Your task to perform on an android device: Search for "usb-a" on ebay.com, select the first entry, add it to the cart, then select checkout. Image 0: 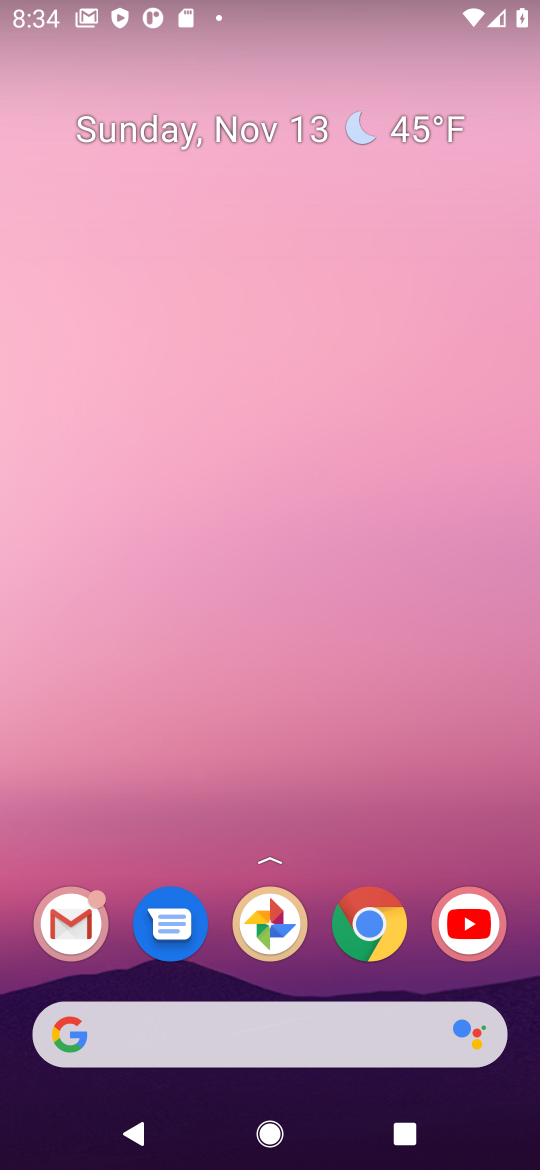
Step 0: click (362, 918)
Your task to perform on an android device: Search for "usb-a" on ebay.com, select the first entry, add it to the cart, then select checkout. Image 1: 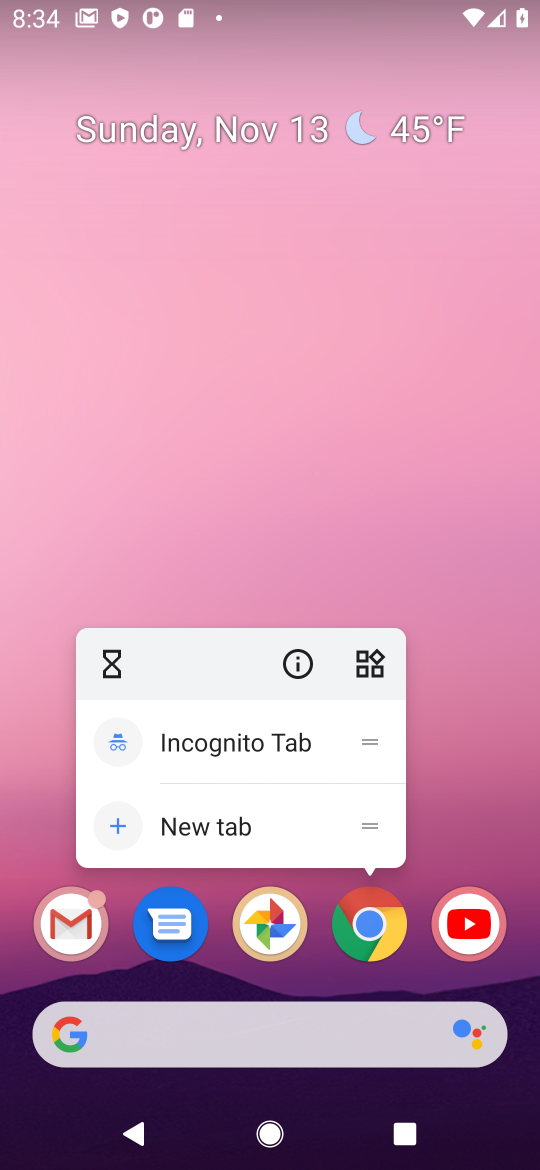
Step 1: click (362, 922)
Your task to perform on an android device: Search for "usb-a" on ebay.com, select the first entry, add it to the cart, then select checkout. Image 2: 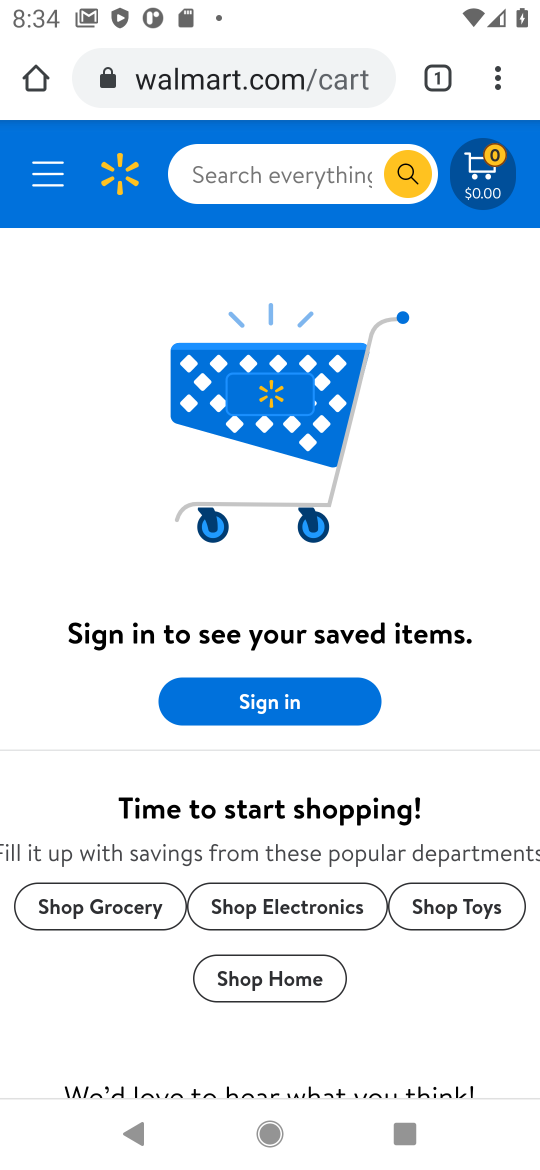
Step 2: click (313, 76)
Your task to perform on an android device: Search for "usb-a" on ebay.com, select the first entry, add it to the cart, then select checkout. Image 3: 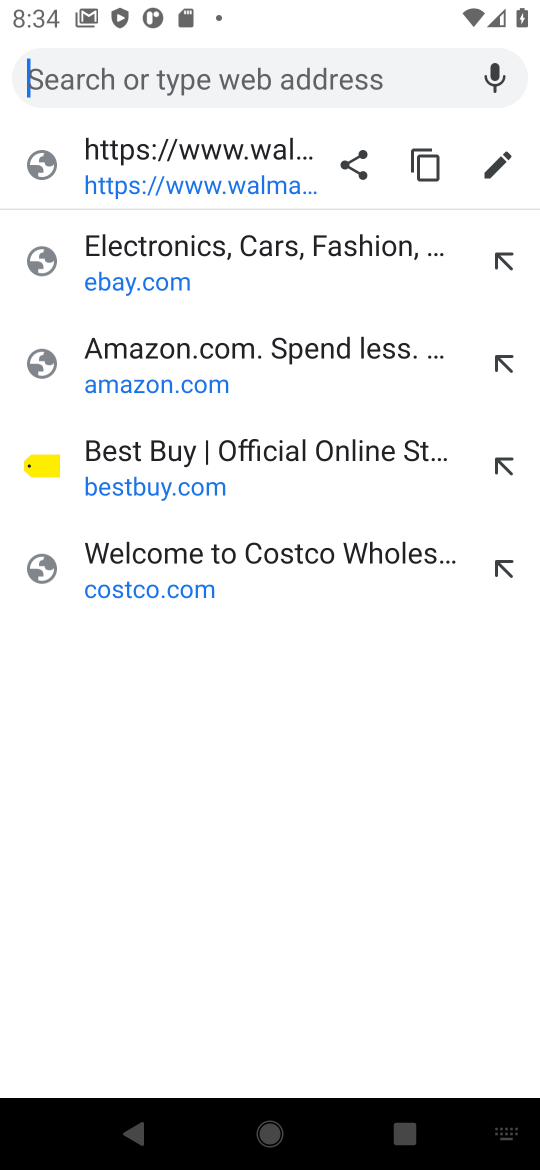
Step 3: click (139, 273)
Your task to perform on an android device: Search for "usb-a" on ebay.com, select the first entry, add it to the cart, then select checkout. Image 4: 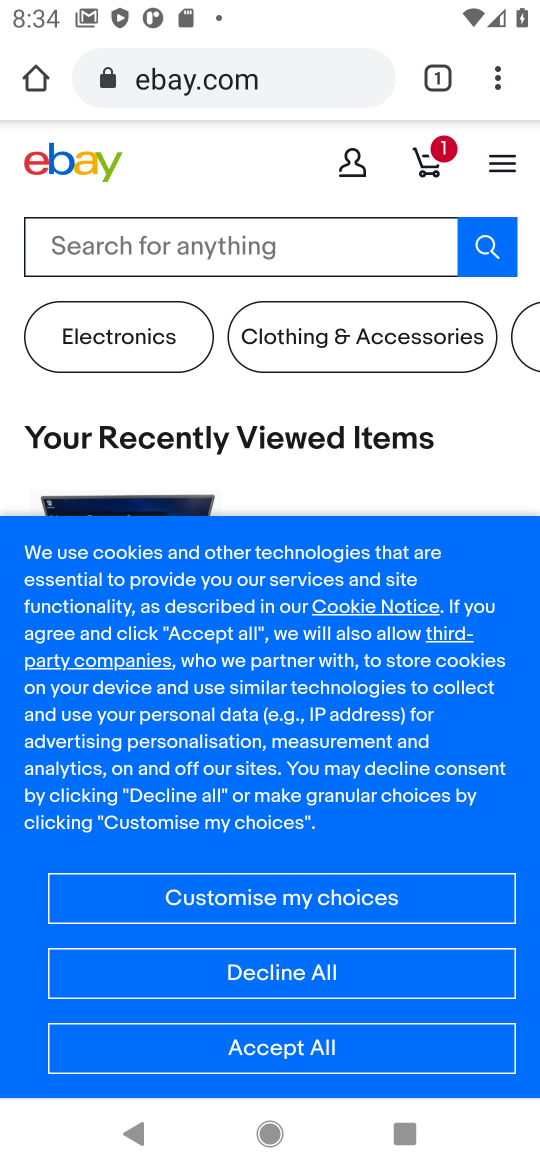
Step 4: click (145, 240)
Your task to perform on an android device: Search for "usb-a" on ebay.com, select the first entry, add it to the cart, then select checkout. Image 5: 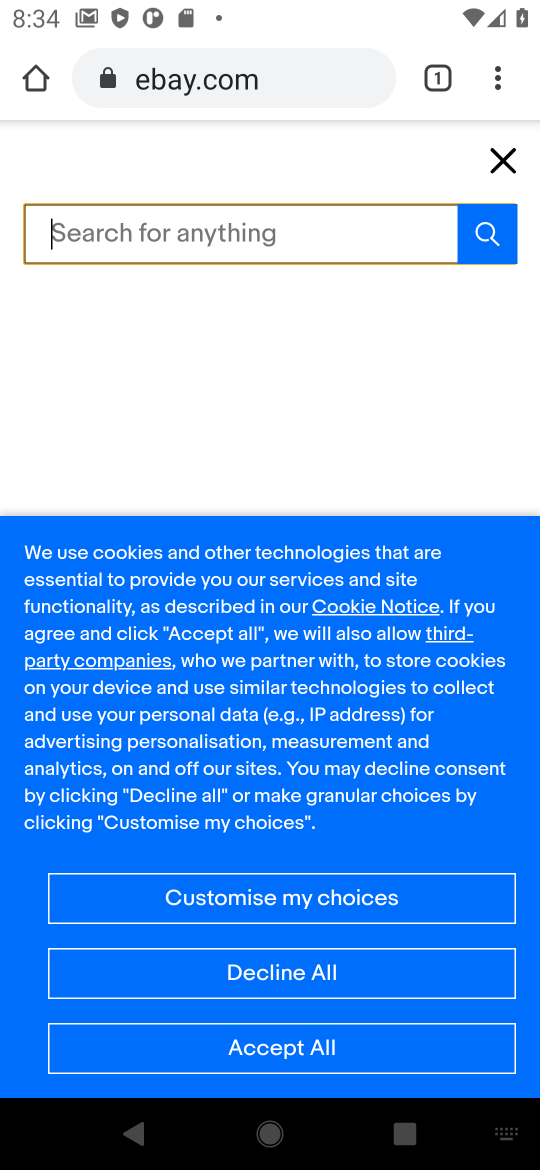
Step 5: type "usb-a"
Your task to perform on an android device: Search for "usb-a" on ebay.com, select the first entry, add it to the cart, then select checkout. Image 6: 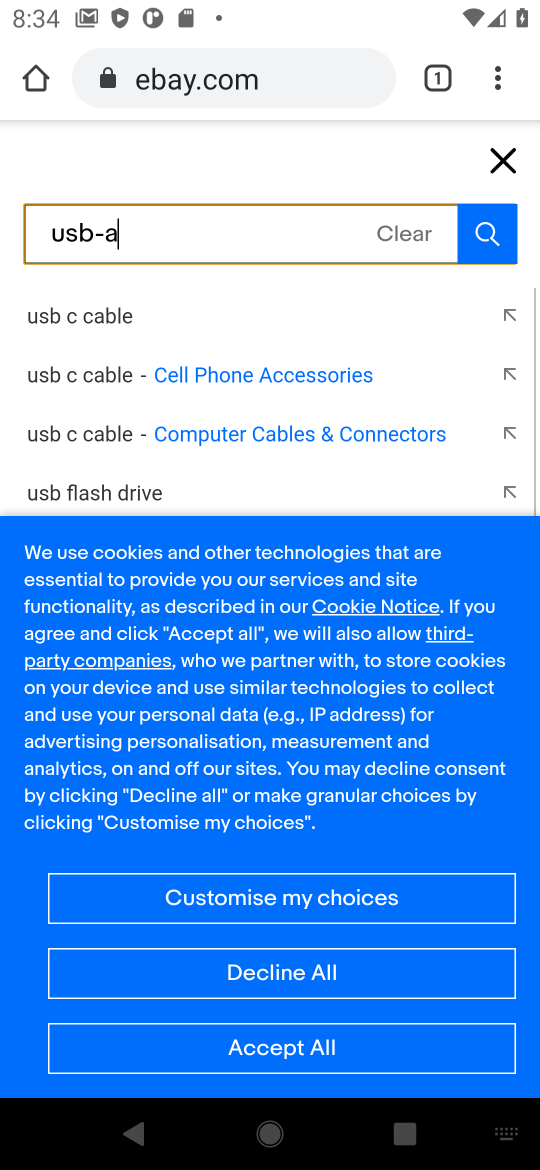
Step 6: press enter
Your task to perform on an android device: Search for "usb-a" on ebay.com, select the first entry, add it to the cart, then select checkout. Image 7: 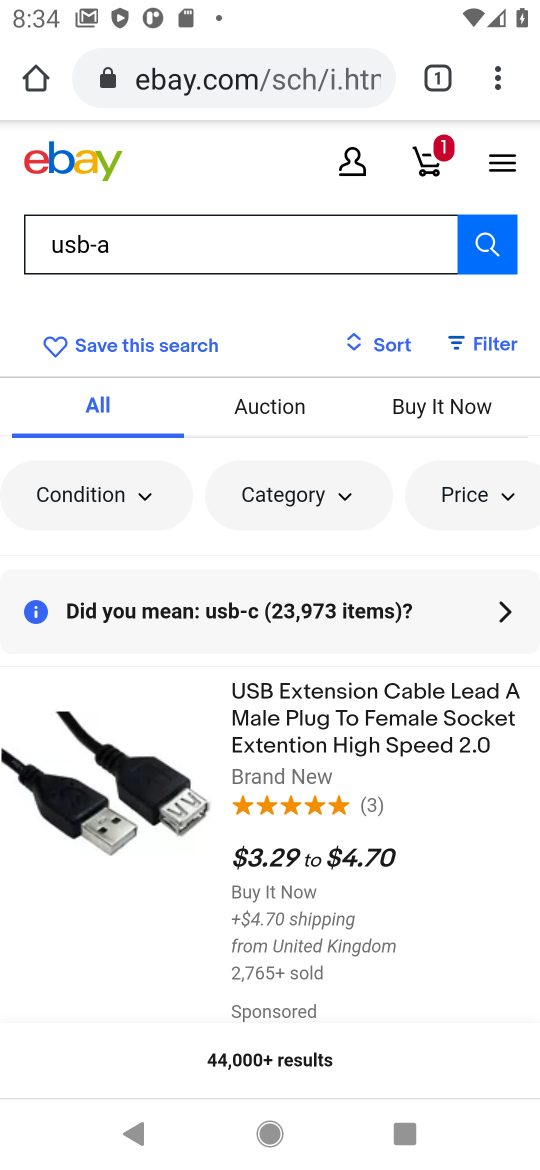
Step 7: task complete